Your task to perform on an android device: delete a single message in the gmail app Image 0: 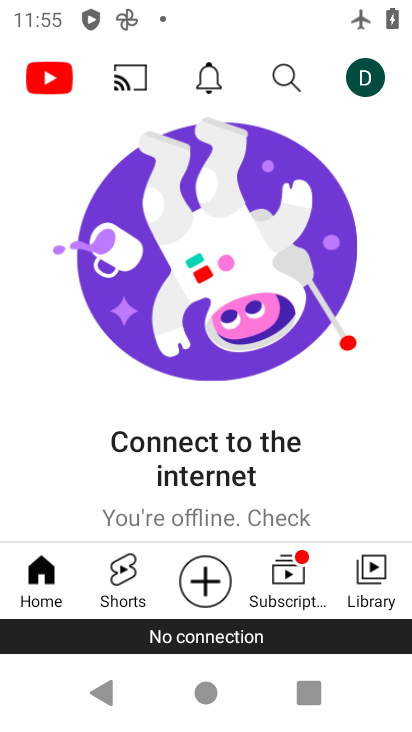
Step 0: press home button
Your task to perform on an android device: delete a single message in the gmail app Image 1: 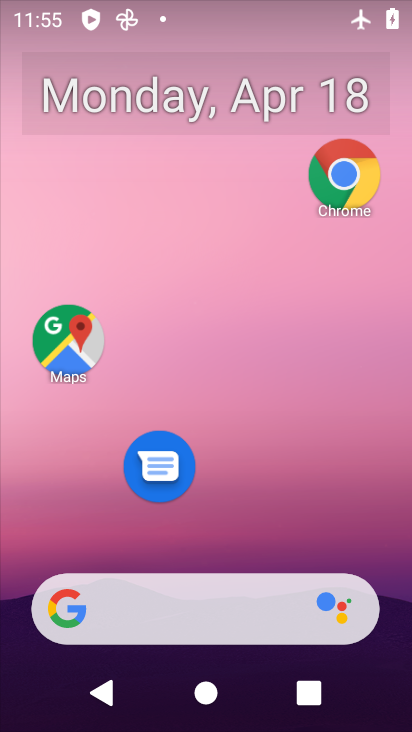
Step 1: drag from (198, 639) to (228, 411)
Your task to perform on an android device: delete a single message in the gmail app Image 2: 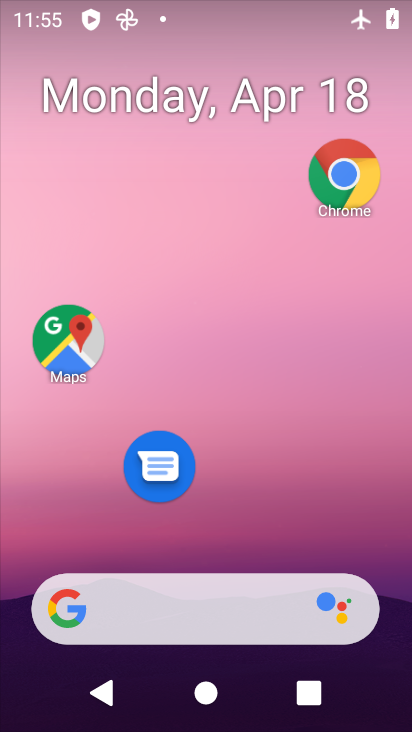
Step 2: drag from (192, 522) to (215, 229)
Your task to perform on an android device: delete a single message in the gmail app Image 3: 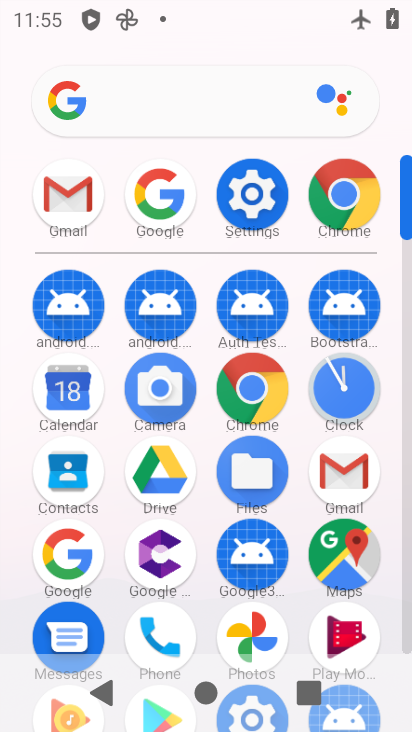
Step 3: click (348, 488)
Your task to perform on an android device: delete a single message in the gmail app Image 4: 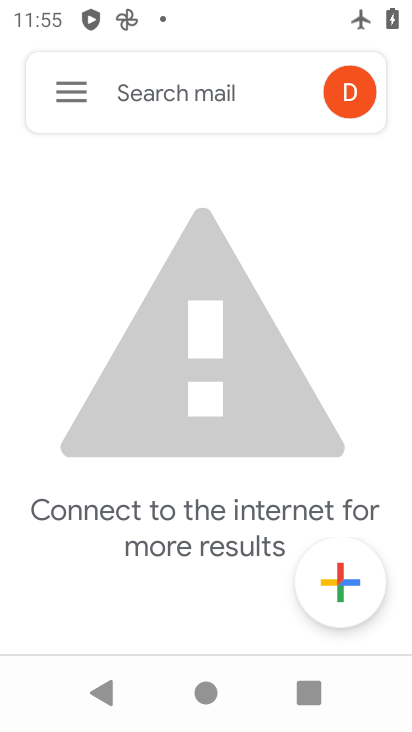
Step 4: click (63, 113)
Your task to perform on an android device: delete a single message in the gmail app Image 5: 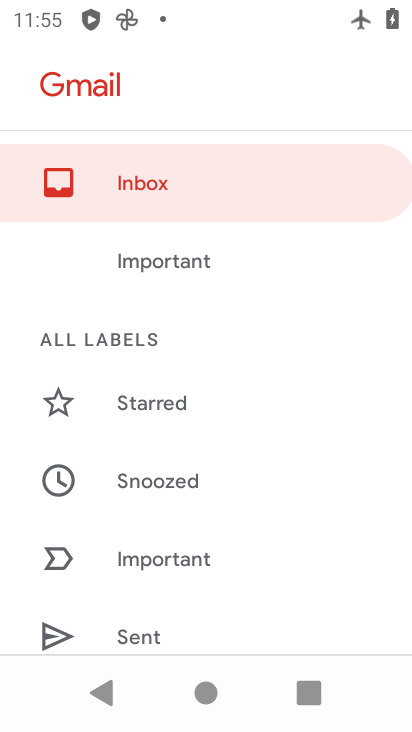
Step 5: drag from (199, 532) to (270, 247)
Your task to perform on an android device: delete a single message in the gmail app Image 6: 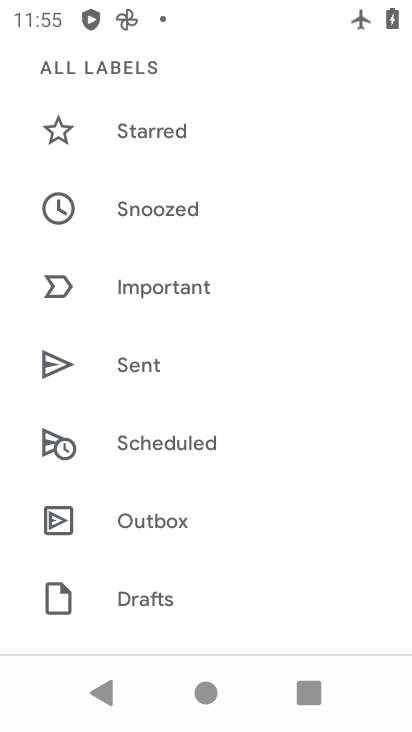
Step 6: drag from (225, 383) to (251, 244)
Your task to perform on an android device: delete a single message in the gmail app Image 7: 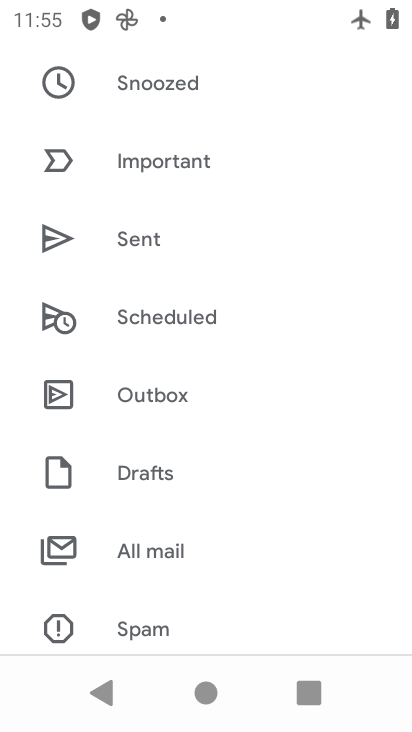
Step 7: click (197, 563)
Your task to perform on an android device: delete a single message in the gmail app Image 8: 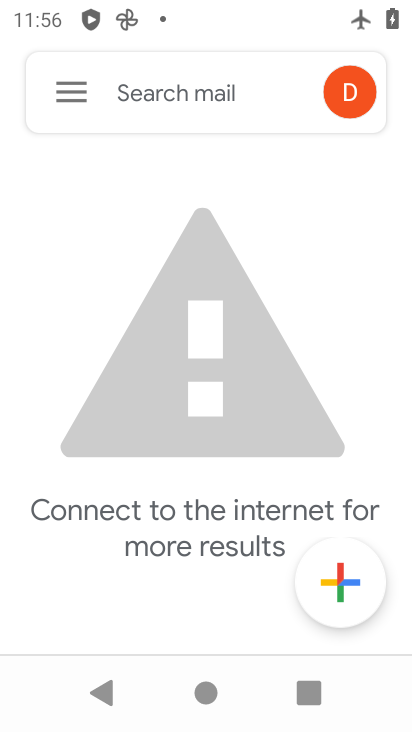
Step 8: task complete